Your task to perform on an android device: Open Chrome and go to the settings page Image 0: 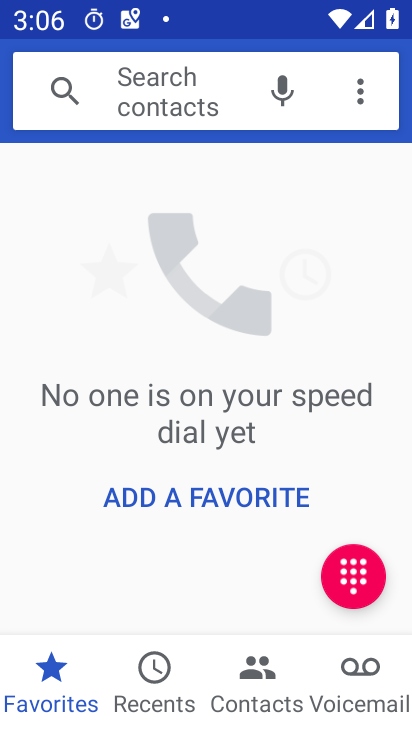
Step 0: press home button
Your task to perform on an android device: Open Chrome and go to the settings page Image 1: 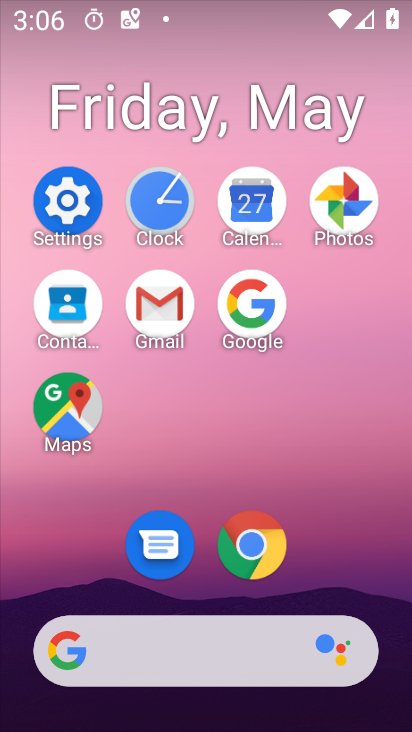
Step 1: click (270, 544)
Your task to perform on an android device: Open Chrome and go to the settings page Image 2: 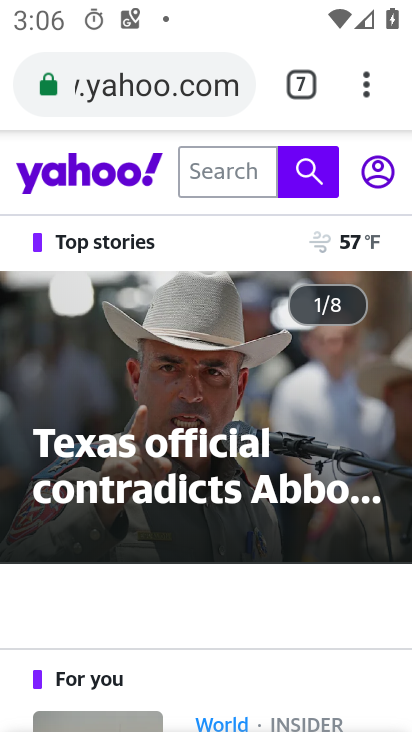
Step 2: click (381, 92)
Your task to perform on an android device: Open Chrome and go to the settings page Image 3: 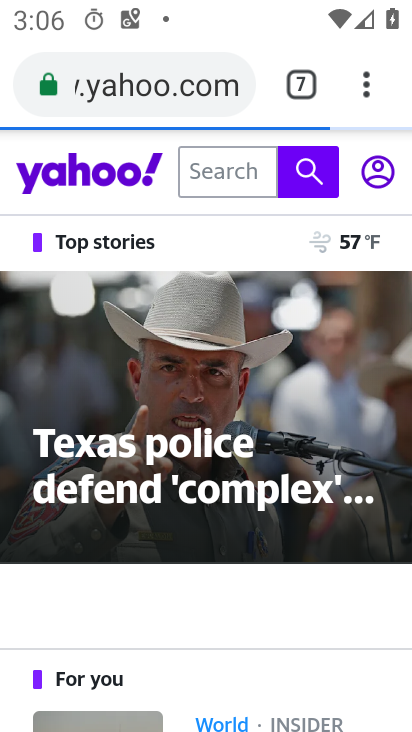
Step 3: click (372, 77)
Your task to perform on an android device: Open Chrome and go to the settings page Image 4: 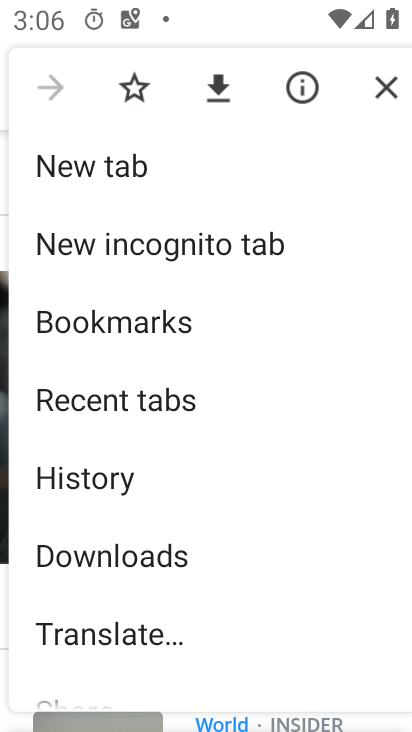
Step 4: drag from (187, 492) to (237, 92)
Your task to perform on an android device: Open Chrome and go to the settings page Image 5: 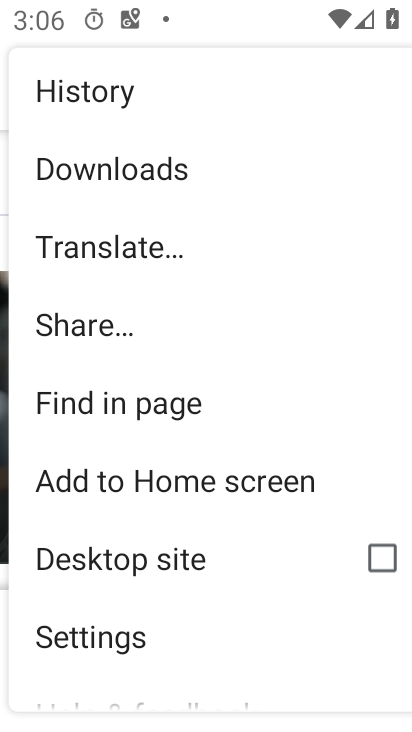
Step 5: click (194, 647)
Your task to perform on an android device: Open Chrome and go to the settings page Image 6: 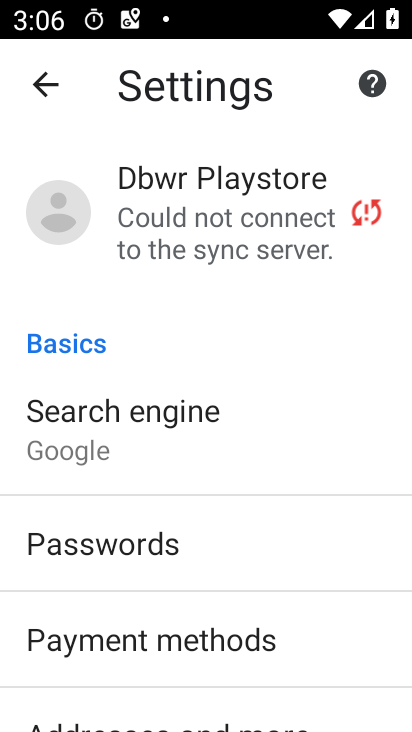
Step 6: task complete